Your task to perform on an android device: turn smart compose on in the gmail app Image 0: 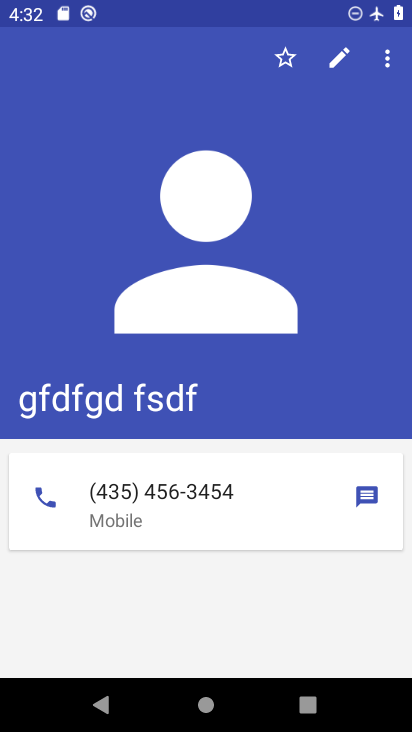
Step 0: press home button
Your task to perform on an android device: turn smart compose on in the gmail app Image 1: 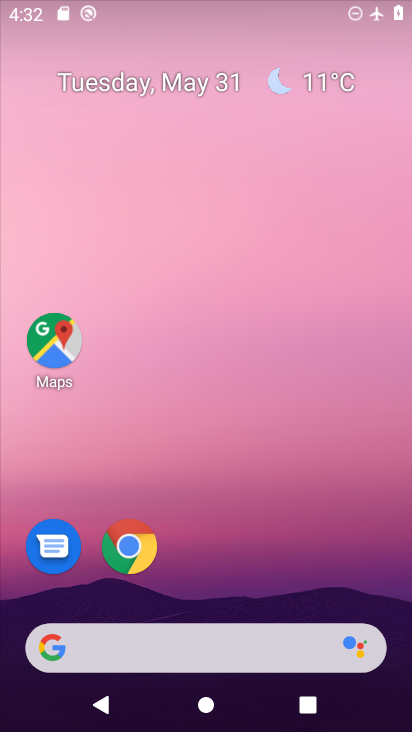
Step 1: drag from (174, 4) to (107, 75)
Your task to perform on an android device: turn smart compose on in the gmail app Image 2: 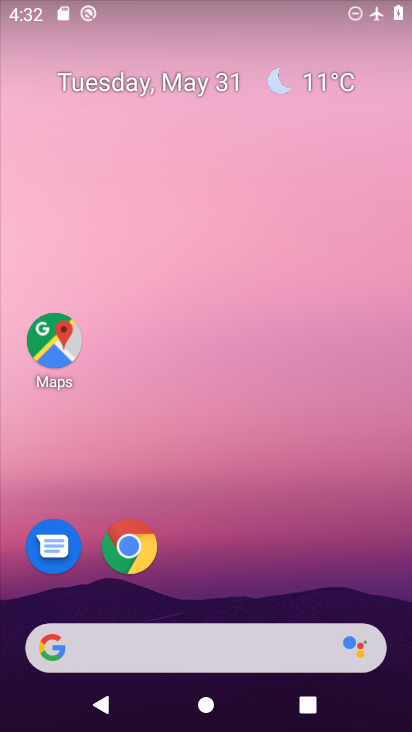
Step 2: drag from (297, 562) to (171, 39)
Your task to perform on an android device: turn smart compose on in the gmail app Image 3: 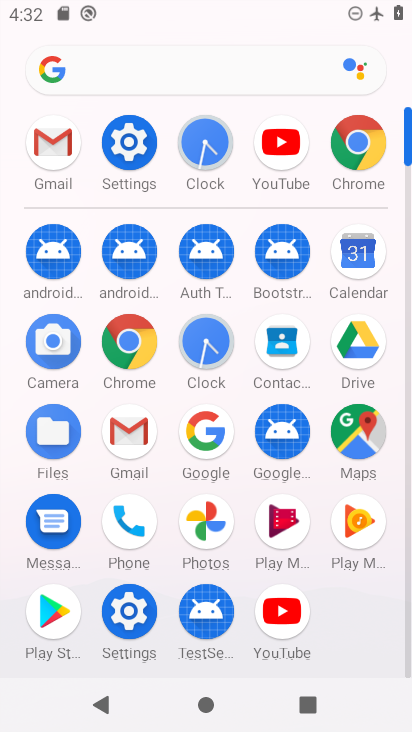
Step 3: click (58, 199)
Your task to perform on an android device: turn smart compose on in the gmail app Image 4: 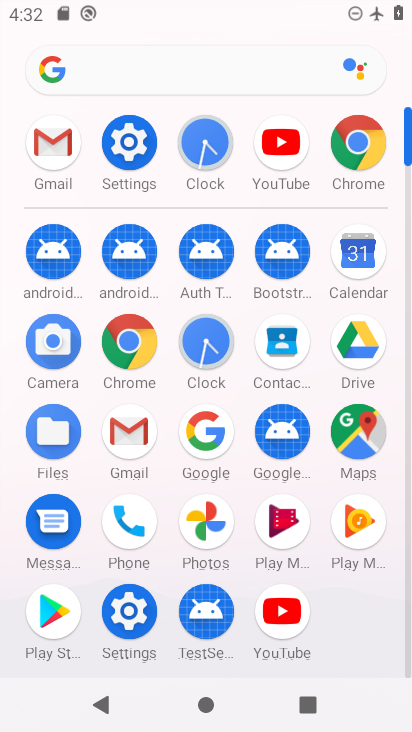
Step 4: click (69, 134)
Your task to perform on an android device: turn smart compose on in the gmail app Image 5: 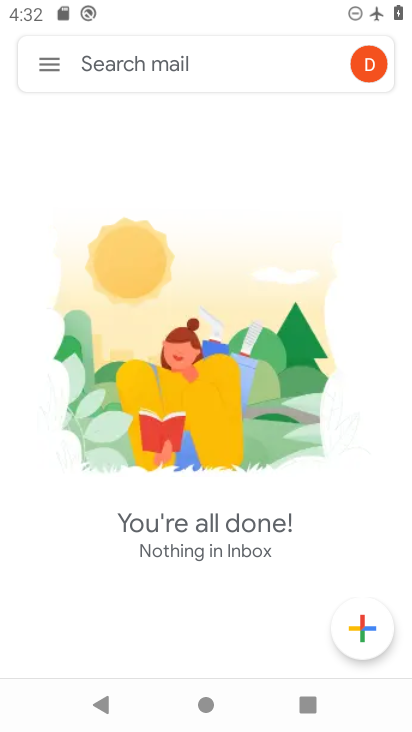
Step 5: click (46, 69)
Your task to perform on an android device: turn smart compose on in the gmail app Image 6: 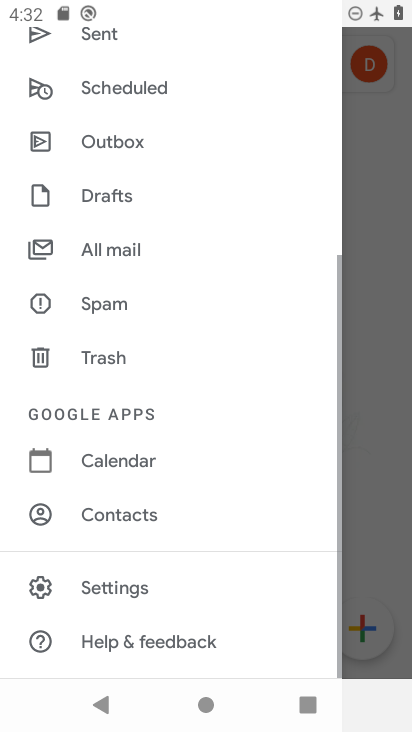
Step 6: click (176, 594)
Your task to perform on an android device: turn smart compose on in the gmail app Image 7: 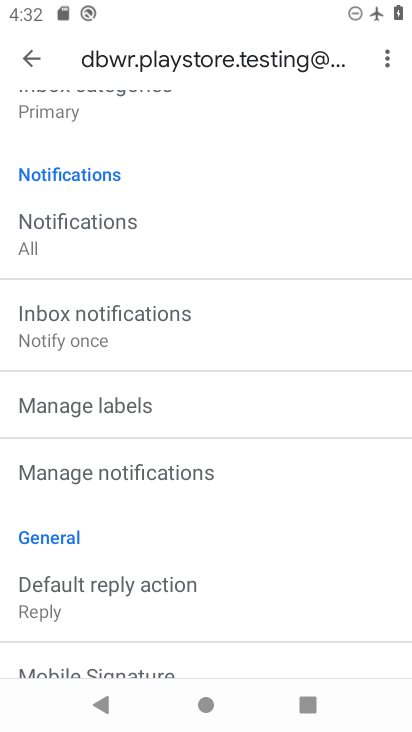
Step 7: task complete